Your task to perform on an android device: What's the weather going to be this weekend? Image 0: 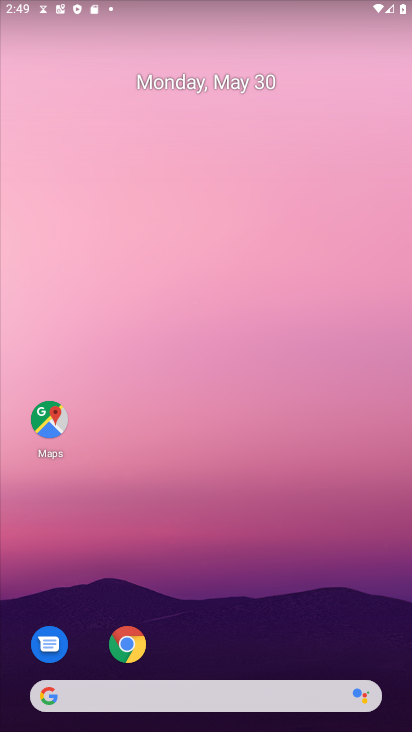
Step 0: click (230, 705)
Your task to perform on an android device: What's the weather going to be this weekend? Image 1: 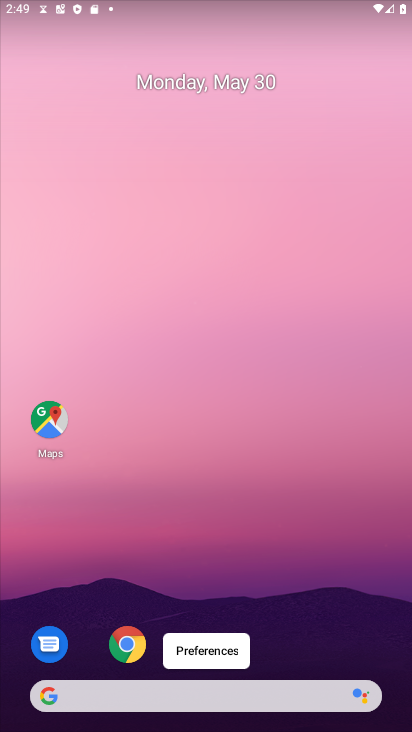
Step 1: click (232, 695)
Your task to perform on an android device: What's the weather going to be this weekend? Image 2: 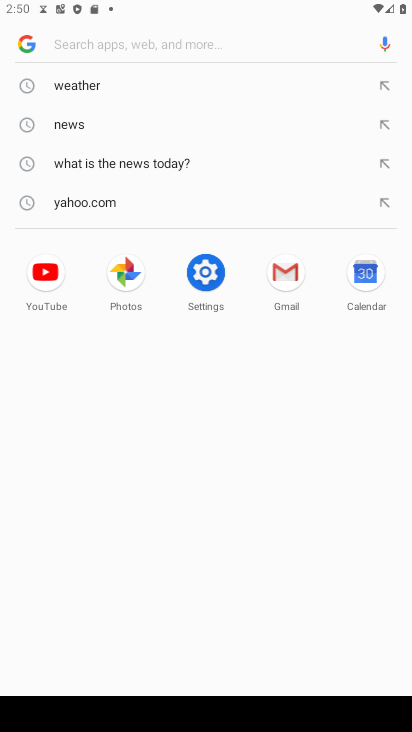
Step 2: type "weather going to be this weekend"
Your task to perform on an android device: What's the weather going to be this weekend? Image 3: 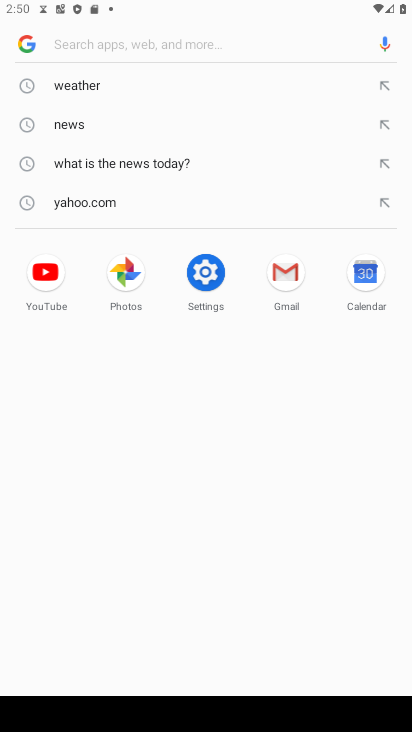
Step 3: drag from (117, 50) to (195, 43)
Your task to perform on an android device: What's the weather going to be this weekend? Image 4: 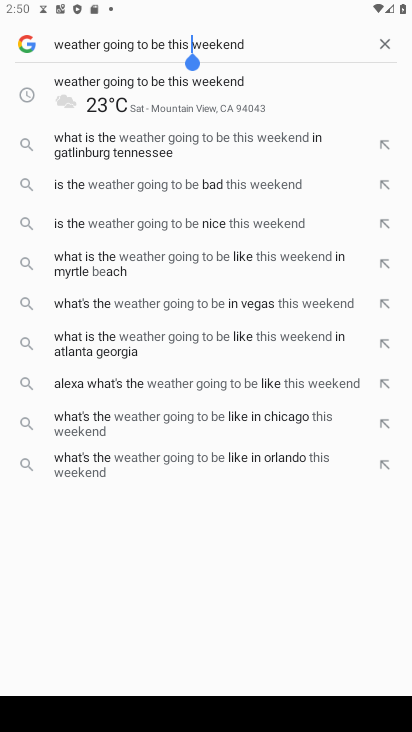
Step 4: click (161, 90)
Your task to perform on an android device: What's the weather going to be this weekend? Image 5: 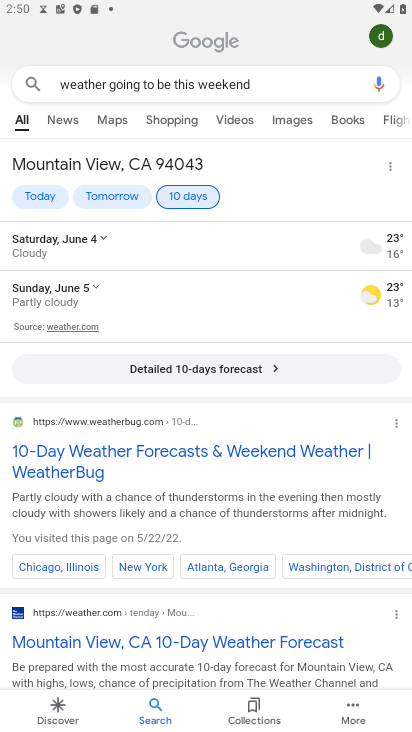
Step 5: task complete